Your task to perform on an android device: change the clock display to show seconds Image 0: 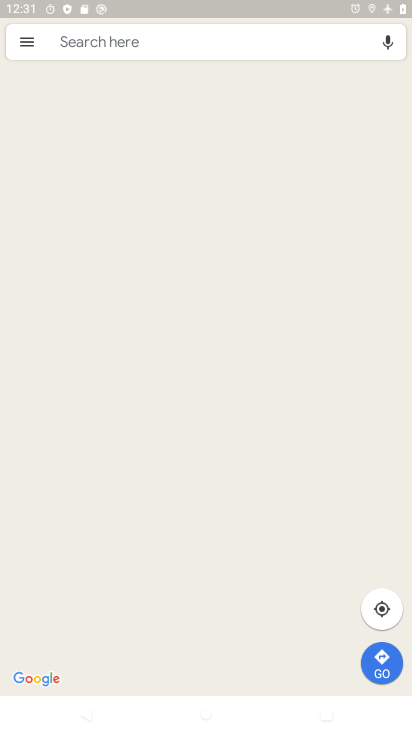
Step 0: press back button
Your task to perform on an android device: change the clock display to show seconds Image 1: 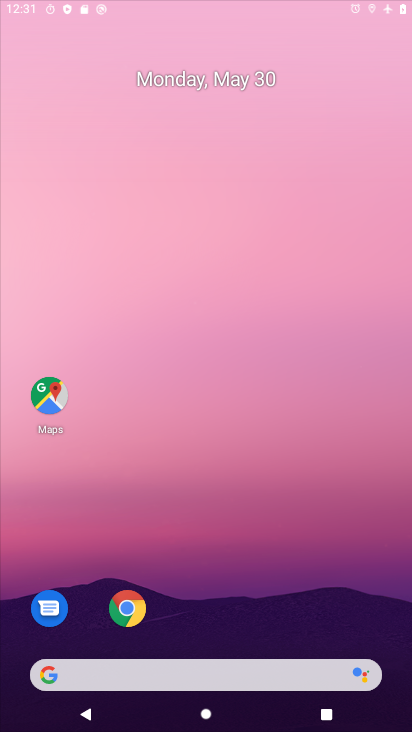
Step 1: press home button
Your task to perform on an android device: change the clock display to show seconds Image 2: 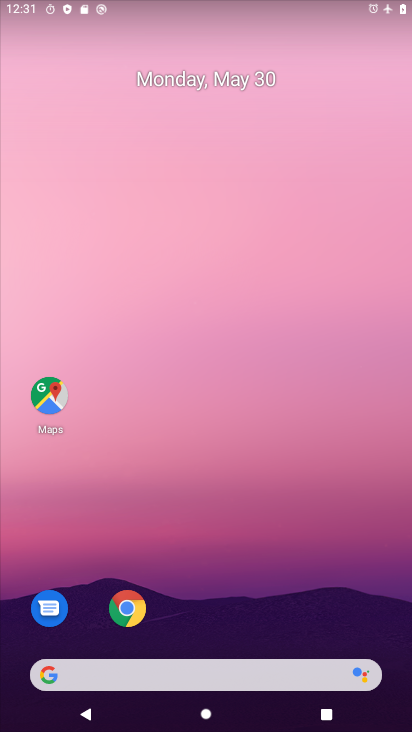
Step 2: drag from (227, 630) to (173, 25)
Your task to perform on an android device: change the clock display to show seconds Image 3: 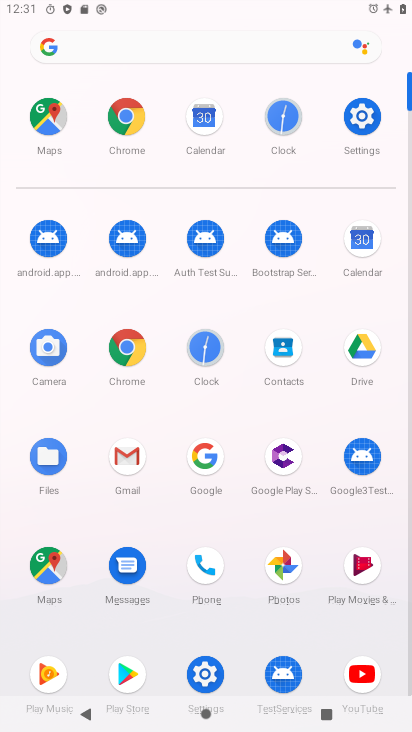
Step 3: click (207, 346)
Your task to perform on an android device: change the clock display to show seconds Image 4: 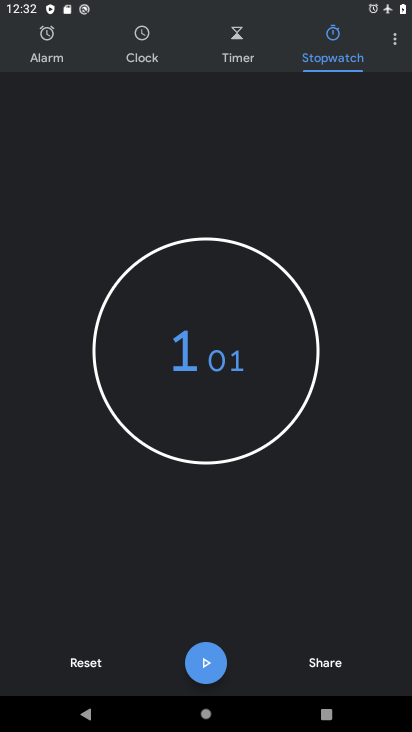
Step 4: click (393, 34)
Your task to perform on an android device: change the clock display to show seconds Image 5: 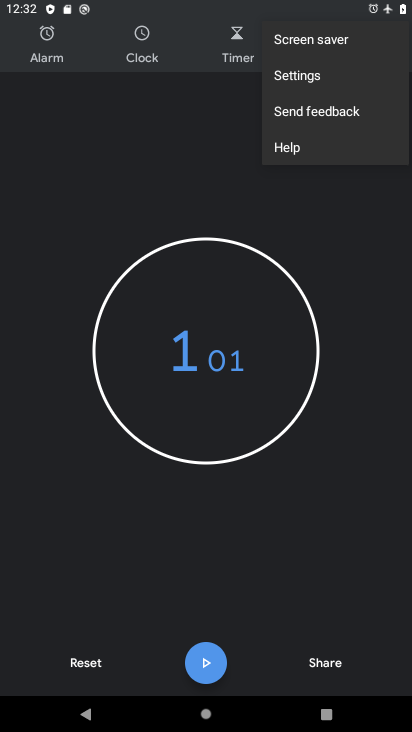
Step 5: click (271, 80)
Your task to perform on an android device: change the clock display to show seconds Image 6: 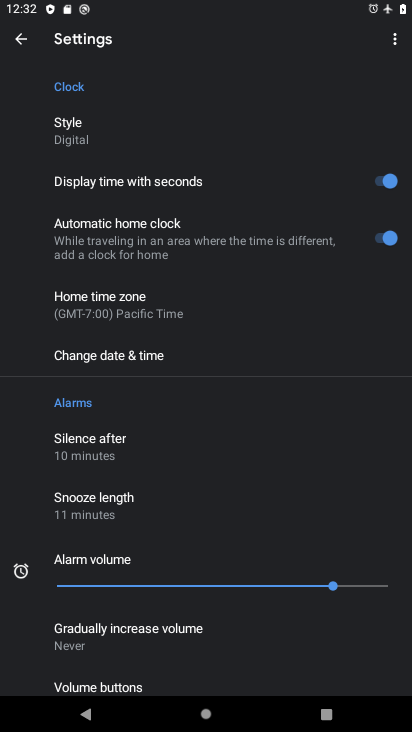
Step 6: click (358, 184)
Your task to perform on an android device: change the clock display to show seconds Image 7: 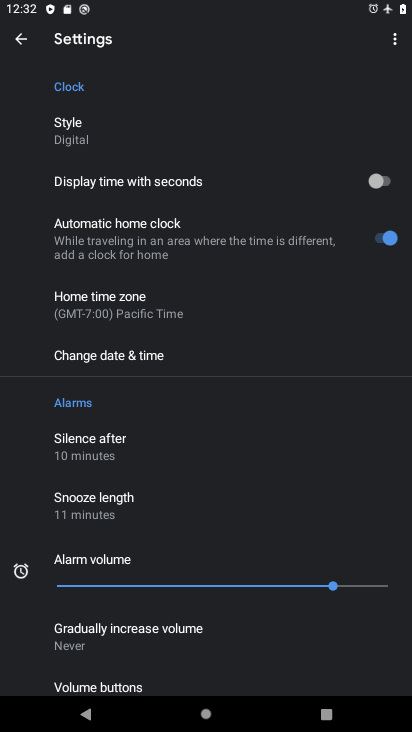
Step 7: task complete